Your task to perform on an android device: Go to eBay Image 0: 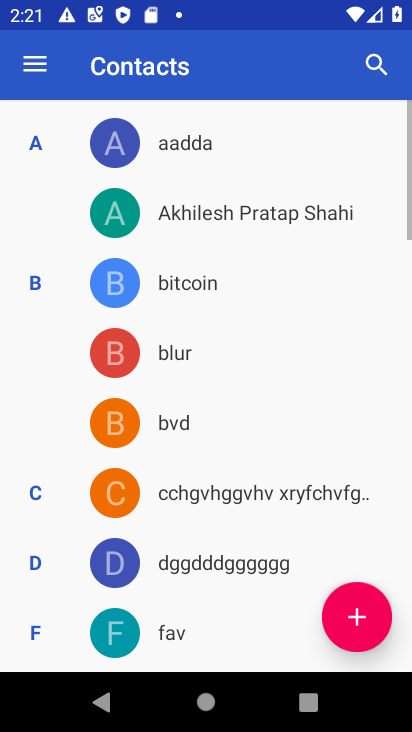
Step 0: drag from (245, 579) to (285, 541)
Your task to perform on an android device: Go to eBay Image 1: 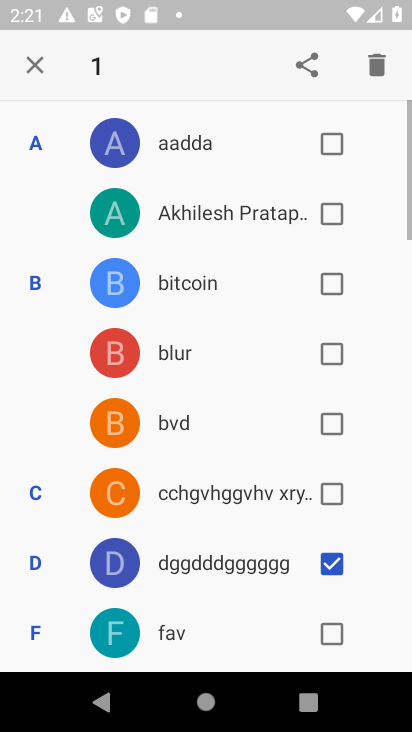
Step 1: press home button
Your task to perform on an android device: Go to eBay Image 2: 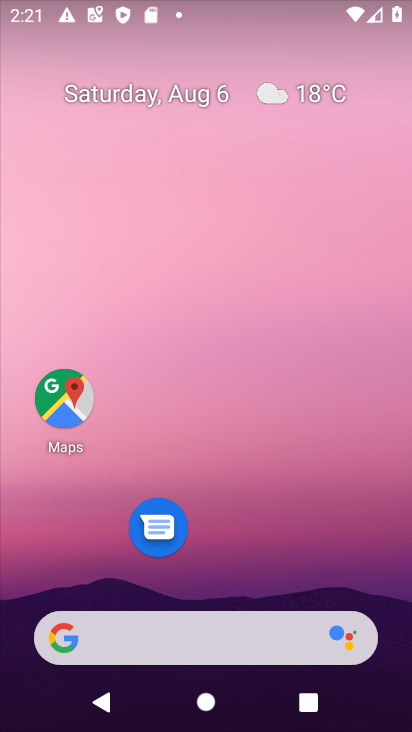
Step 2: drag from (225, 575) to (216, 159)
Your task to perform on an android device: Go to eBay Image 3: 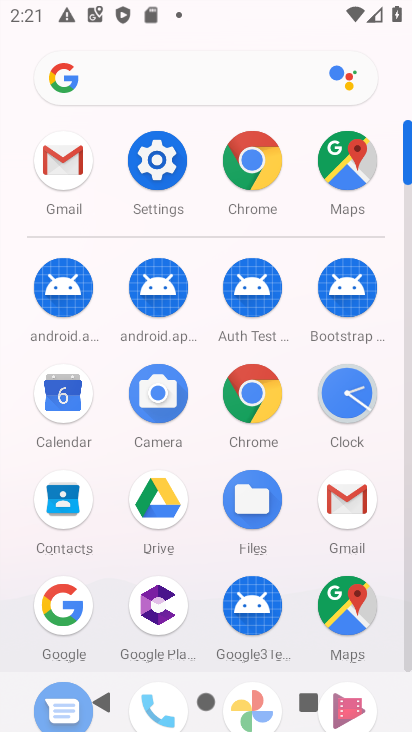
Step 3: click (244, 400)
Your task to perform on an android device: Go to eBay Image 4: 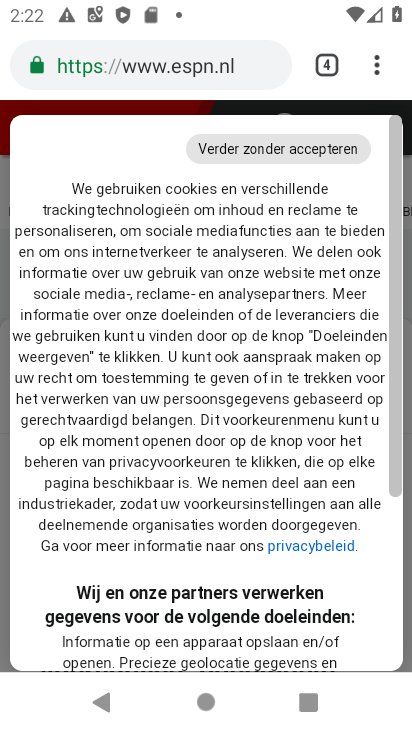
Step 4: click (373, 72)
Your task to perform on an android device: Go to eBay Image 5: 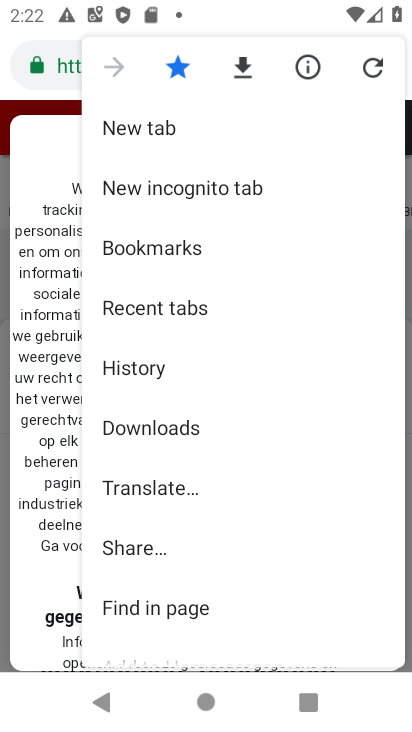
Step 5: click (33, 568)
Your task to perform on an android device: Go to eBay Image 6: 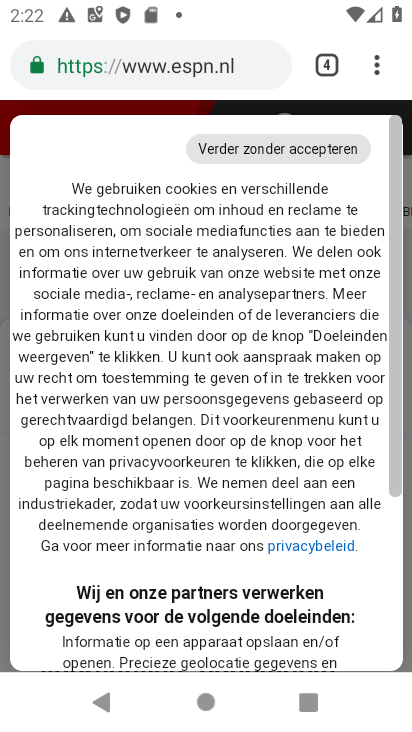
Step 6: click (325, 58)
Your task to perform on an android device: Go to eBay Image 7: 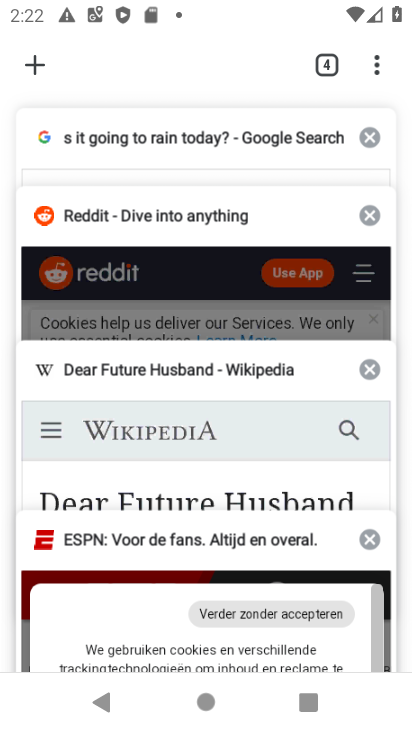
Step 7: click (26, 70)
Your task to perform on an android device: Go to eBay Image 8: 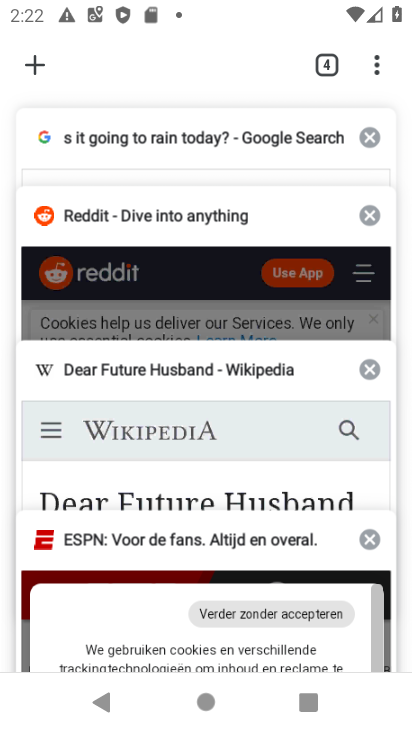
Step 8: click (31, 55)
Your task to perform on an android device: Go to eBay Image 9: 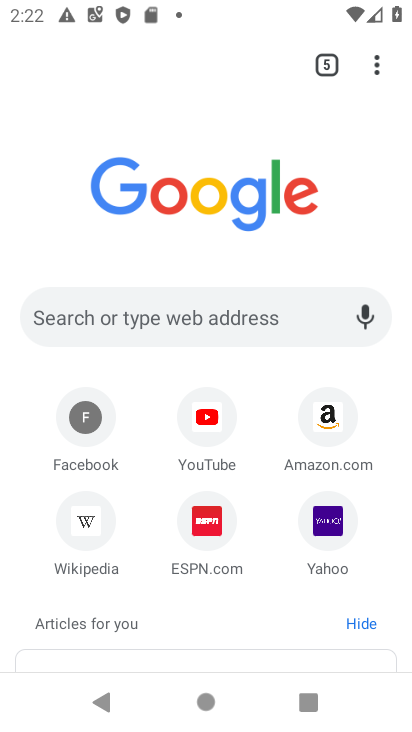
Step 9: drag from (144, 531) to (161, 275)
Your task to perform on an android device: Go to eBay Image 10: 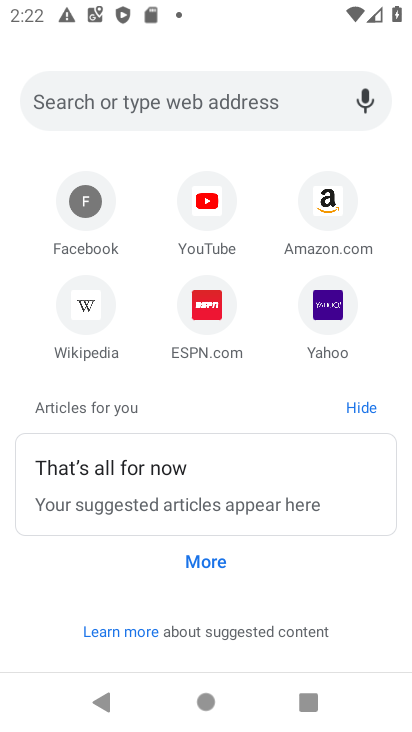
Step 10: click (187, 83)
Your task to perform on an android device: Go to eBay Image 11: 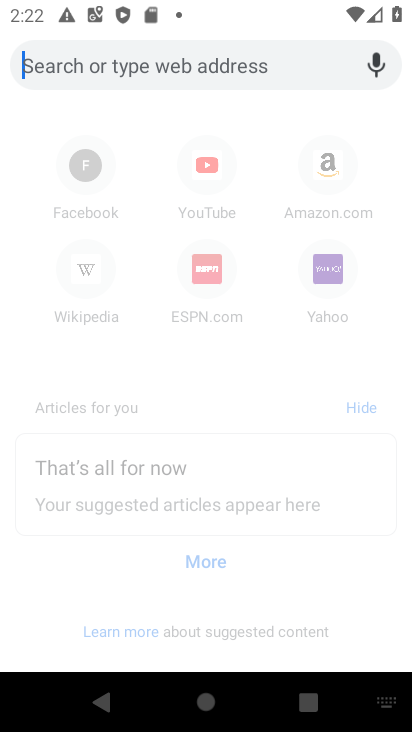
Step 11: type "eBay"
Your task to perform on an android device: Go to eBay Image 12: 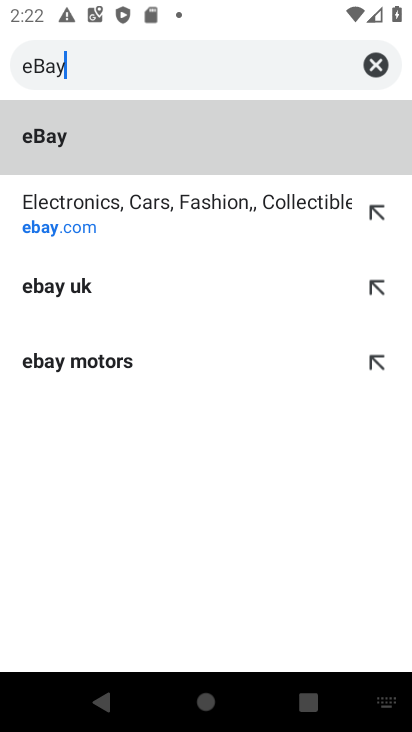
Step 12: type ""
Your task to perform on an android device: Go to eBay Image 13: 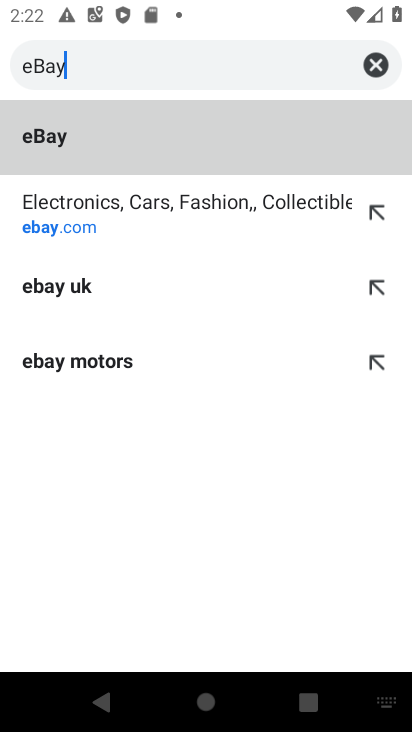
Step 13: click (279, 136)
Your task to perform on an android device: Go to eBay Image 14: 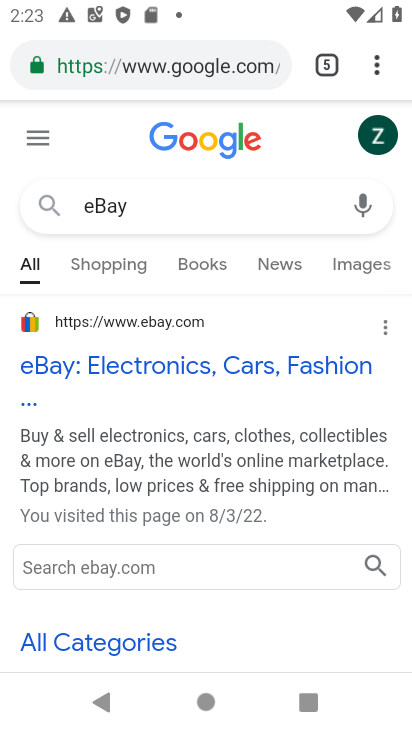
Step 14: click (77, 364)
Your task to perform on an android device: Go to eBay Image 15: 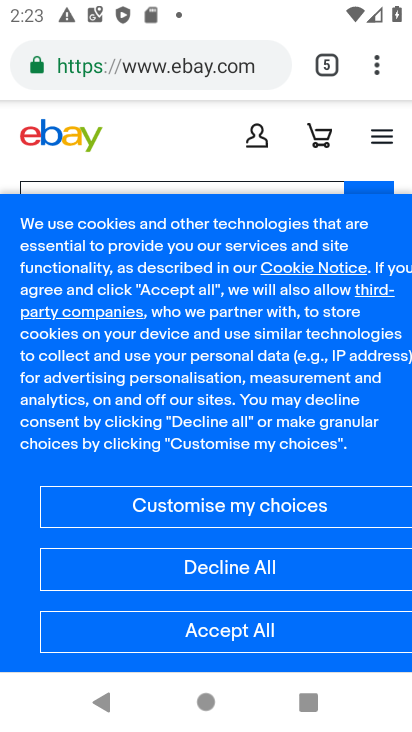
Step 15: task complete